Your task to perform on an android device: open a bookmark in the chrome app Image 0: 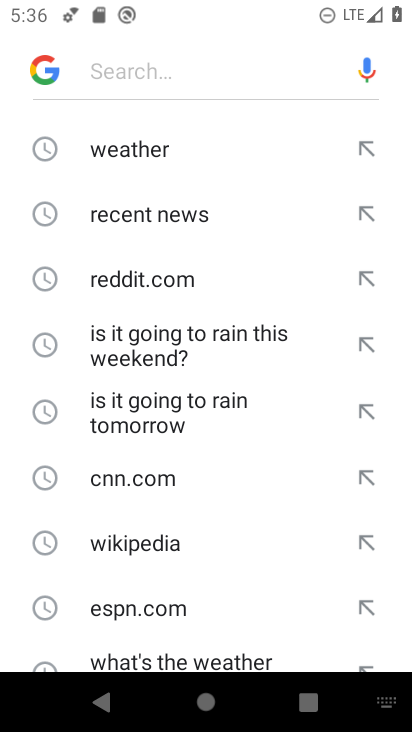
Step 0: press home button
Your task to perform on an android device: open a bookmark in the chrome app Image 1: 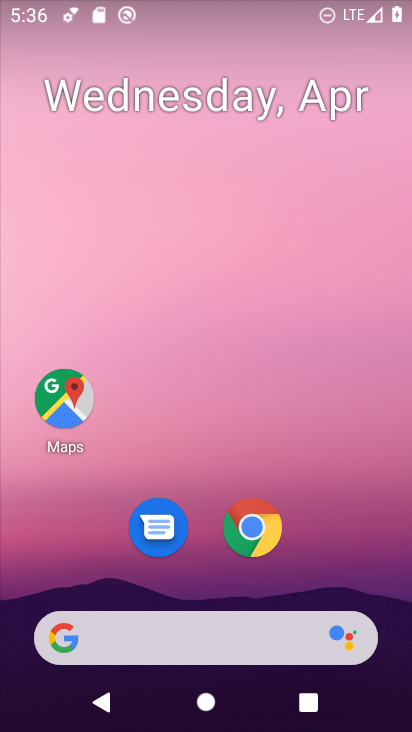
Step 1: click (261, 539)
Your task to perform on an android device: open a bookmark in the chrome app Image 2: 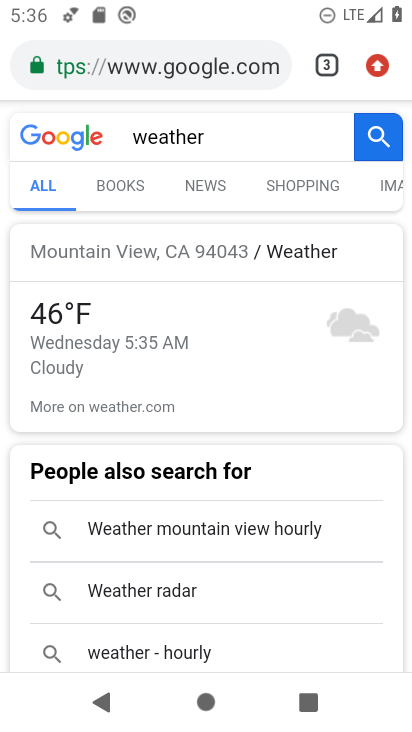
Step 2: click (380, 69)
Your task to perform on an android device: open a bookmark in the chrome app Image 3: 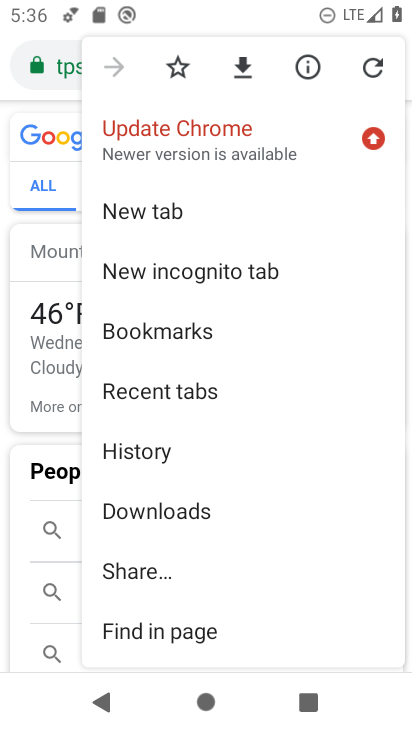
Step 3: click (166, 335)
Your task to perform on an android device: open a bookmark in the chrome app Image 4: 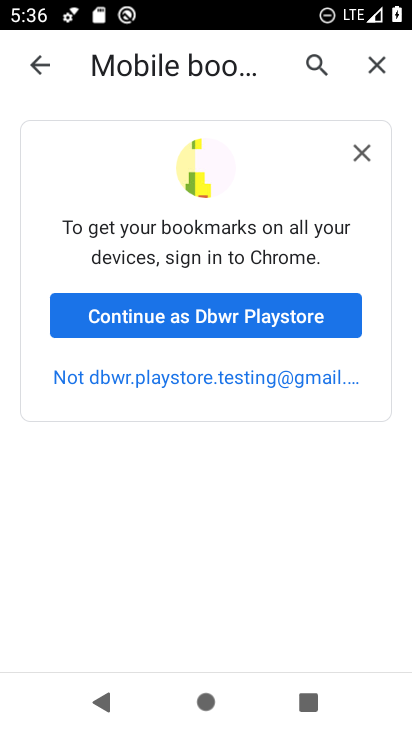
Step 4: click (166, 335)
Your task to perform on an android device: open a bookmark in the chrome app Image 5: 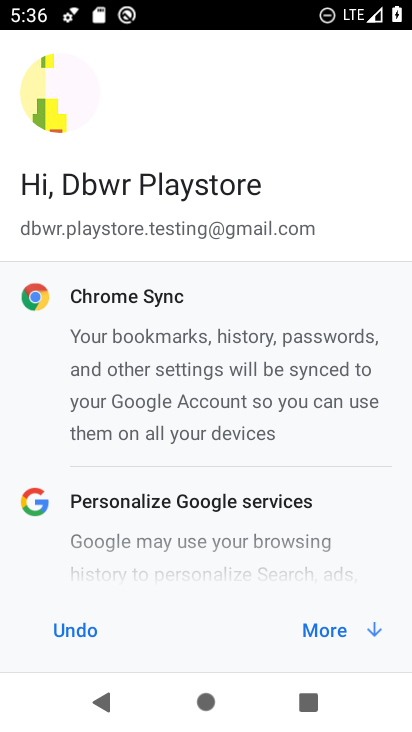
Step 5: click (297, 630)
Your task to perform on an android device: open a bookmark in the chrome app Image 6: 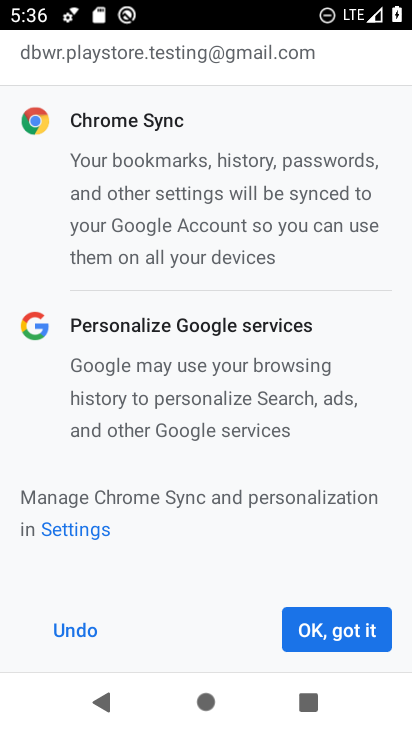
Step 6: click (297, 630)
Your task to perform on an android device: open a bookmark in the chrome app Image 7: 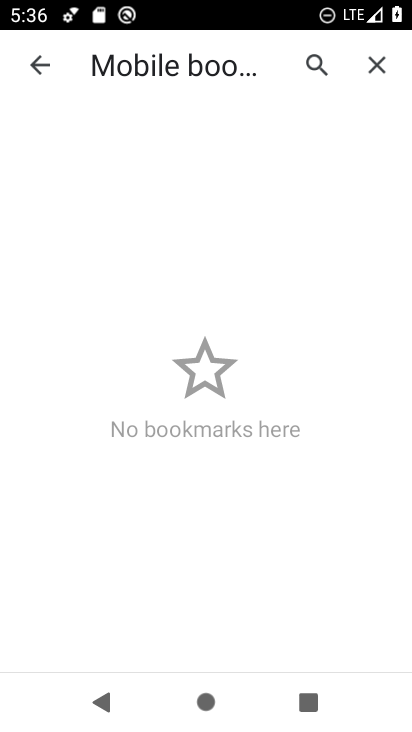
Step 7: drag from (251, 237) to (251, 570)
Your task to perform on an android device: open a bookmark in the chrome app Image 8: 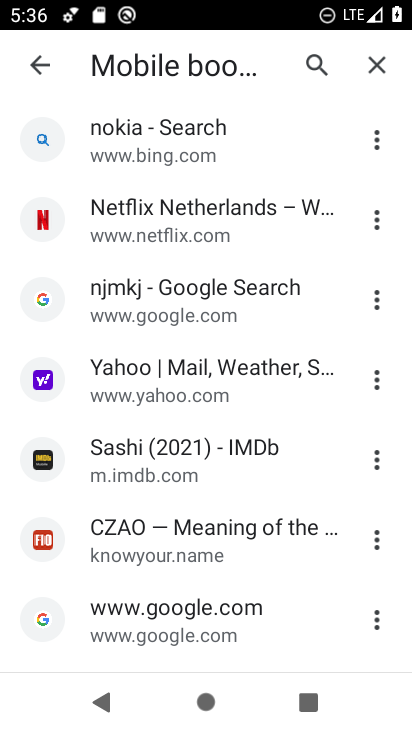
Step 8: drag from (207, 194) to (208, 469)
Your task to perform on an android device: open a bookmark in the chrome app Image 9: 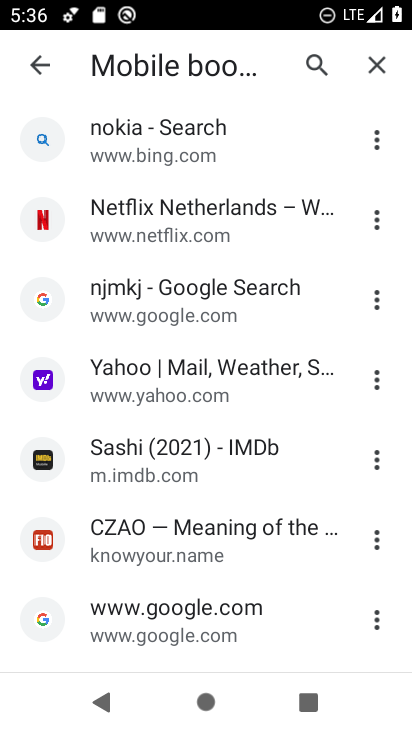
Step 9: click (134, 449)
Your task to perform on an android device: open a bookmark in the chrome app Image 10: 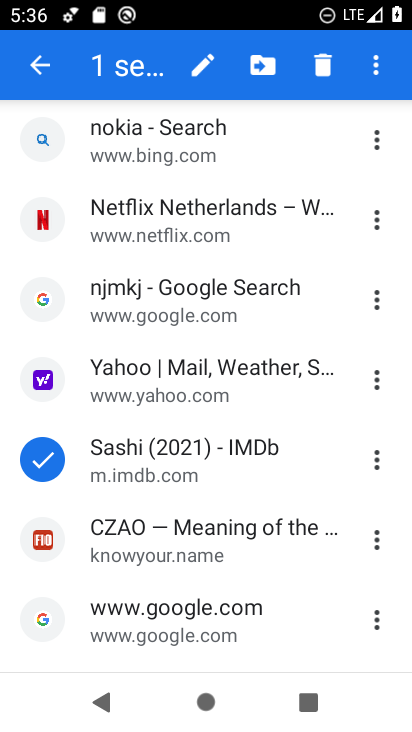
Step 10: click (84, 450)
Your task to perform on an android device: open a bookmark in the chrome app Image 11: 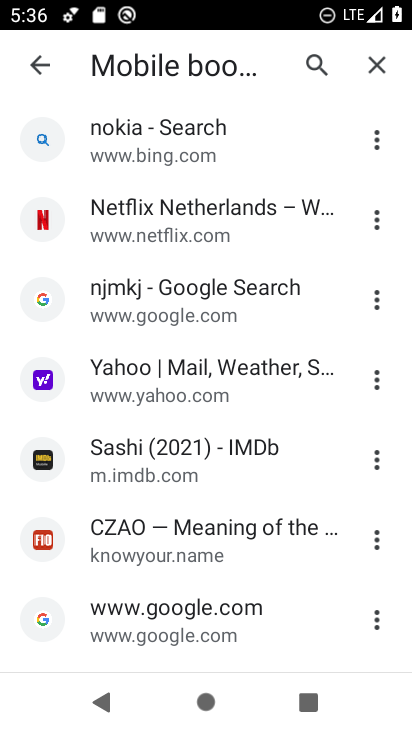
Step 11: click (113, 488)
Your task to perform on an android device: open a bookmark in the chrome app Image 12: 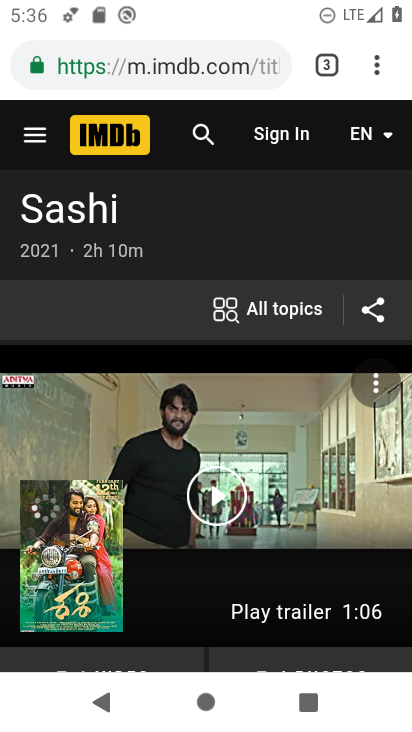
Step 12: task complete